Your task to perform on an android device: change notification settings in the gmail app Image 0: 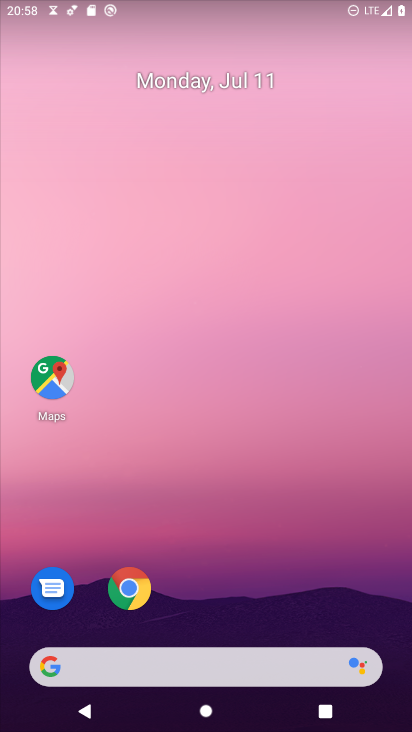
Step 0: press home button
Your task to perform on an android device: change notification settings in the gmail app Image 1: 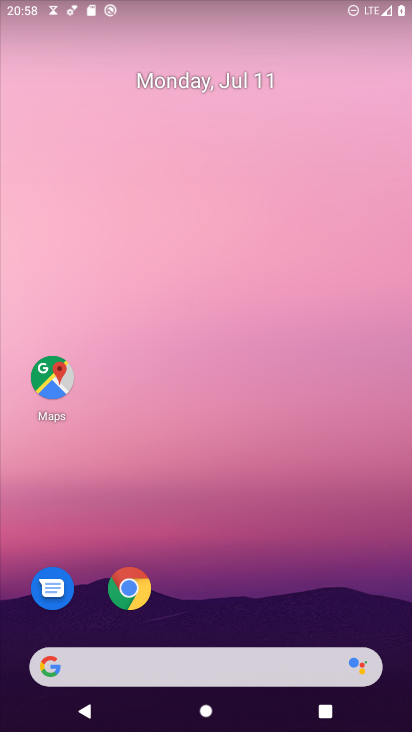
Step 1: drag from (219, 632) to (159, 5)
Your task to perform on an android device: change notification settings in the gmail app Image 2: 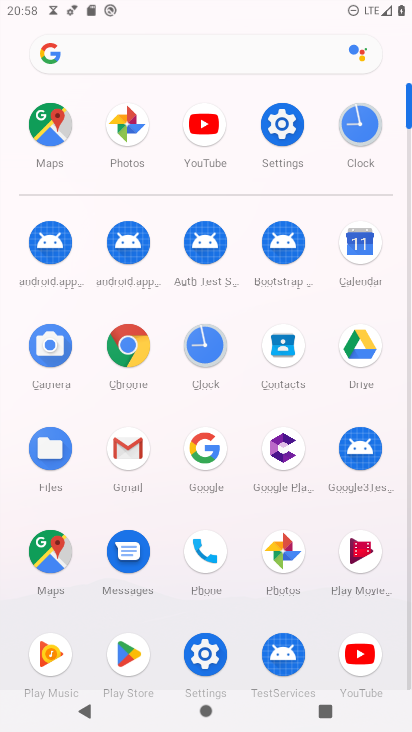
Step 2: click (142, 455)
Your task to perform on an android device: change notification settings in the gmail app Image 3: 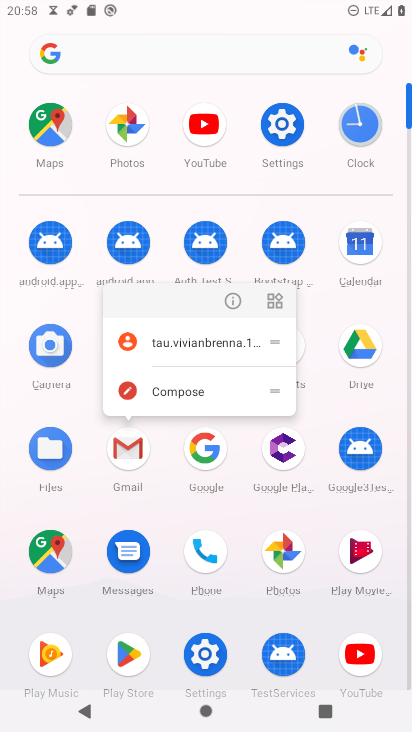
Step 3: click (132, 455)
Your task to perform on an android device: change notification settings in the gmail app Image 4: 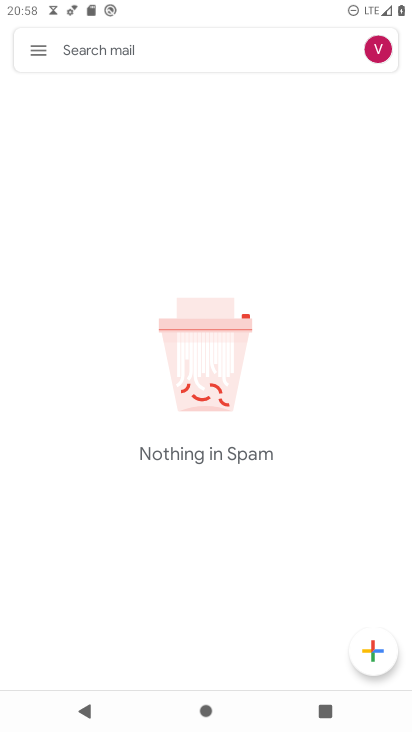
Step 4: click (42, 47)
Your task to perform on an android device: change notification settings in the gmail app Image 5: 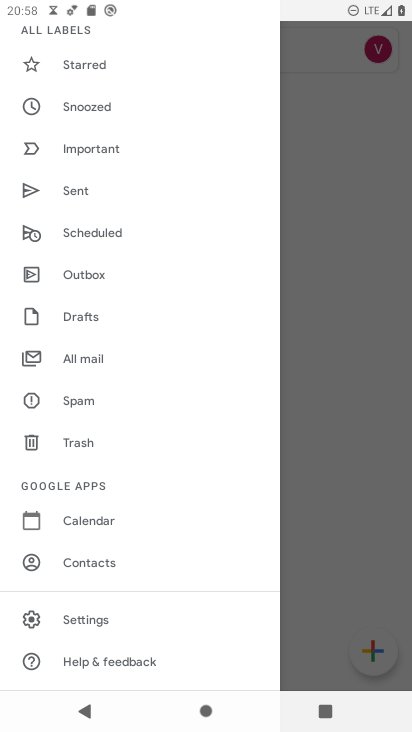
Step 5: click (91, 623)
Your task to perform on an android device: change notification settings in the gmail app Image 6: 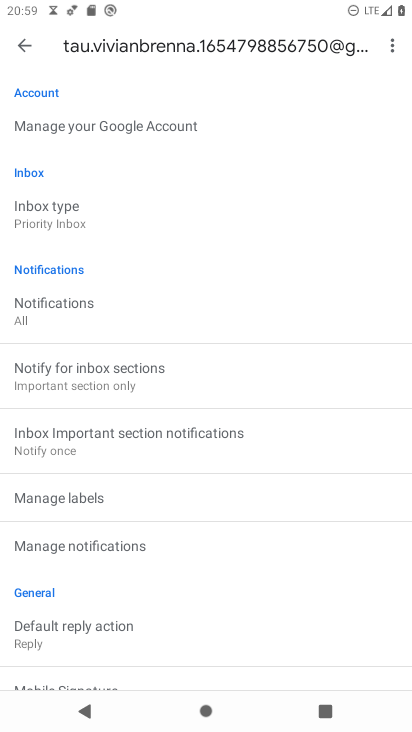
Step 6: click (80, 541)
Your task to perform on an android device: change notification settings in the gmail app Image 7: 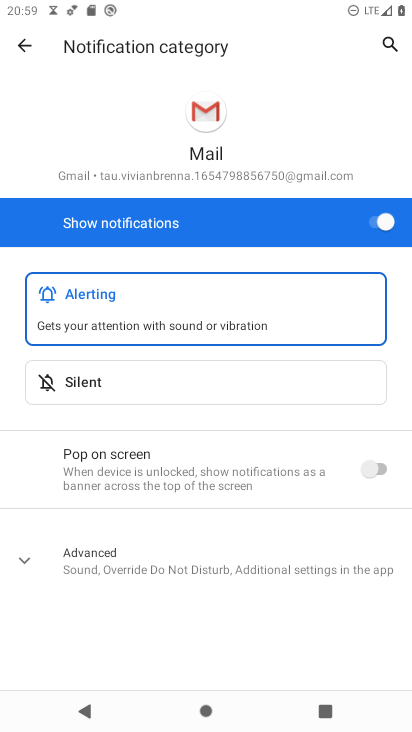
Step 7: click (387, 224)
Your task to perform on an android device: change notification settings in the gmail app Image 8: 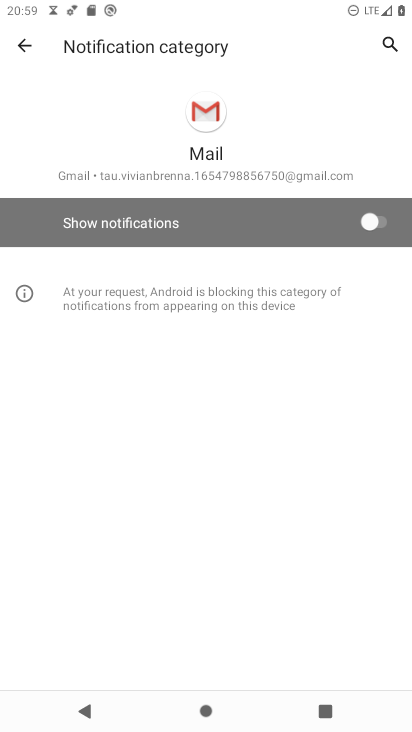
Step 8: task complete